Your task to perform on an android device: Open the map Image 0: 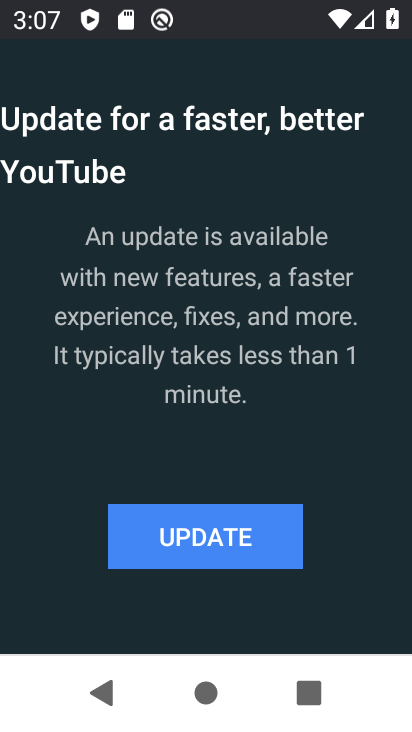
Step 0: drag from (320, 547) to (201, 254)
Your task to perform on an android device: Open the map Image 1: 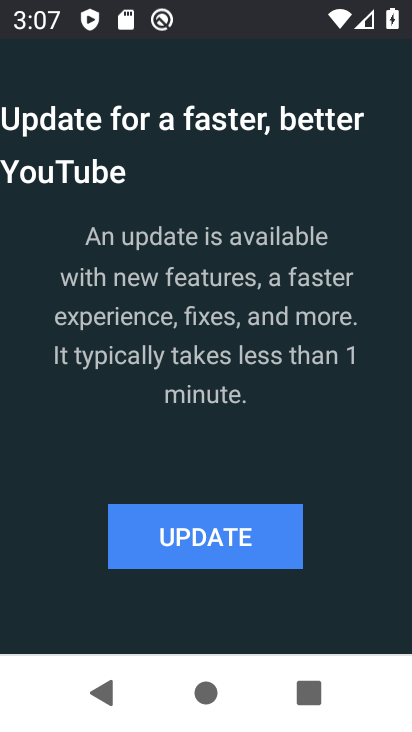
Step 1: press home button
Your task to perform on an android device: Open the map Image 2: 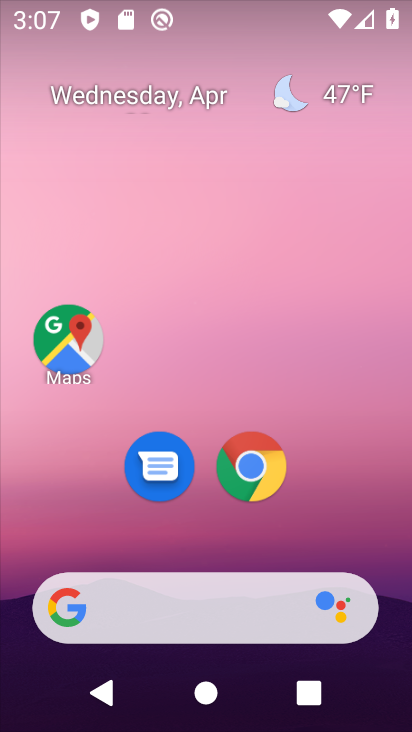
Step 2: click (63, 325)
Your task to perform on an android device: Open the map Image 3: 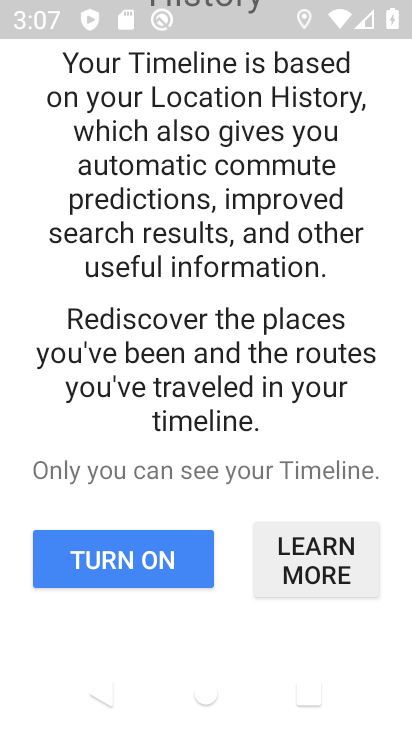
Step 3: press back button
Your task to perform on an android device: Open the map Image 4: 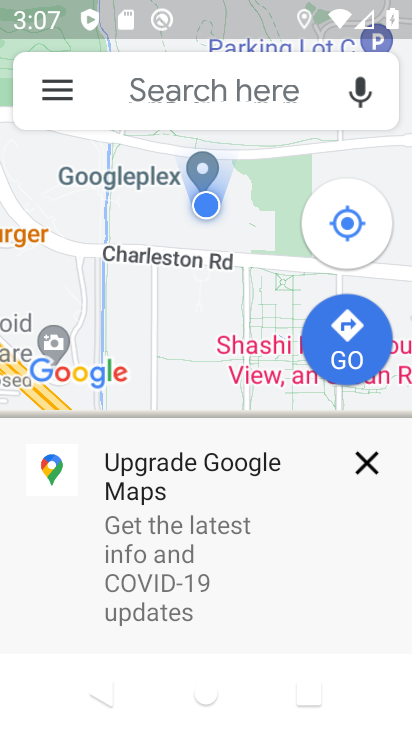
Step 4: click (364, 466)
Your task to perform on an android device: Open the map Image 5: 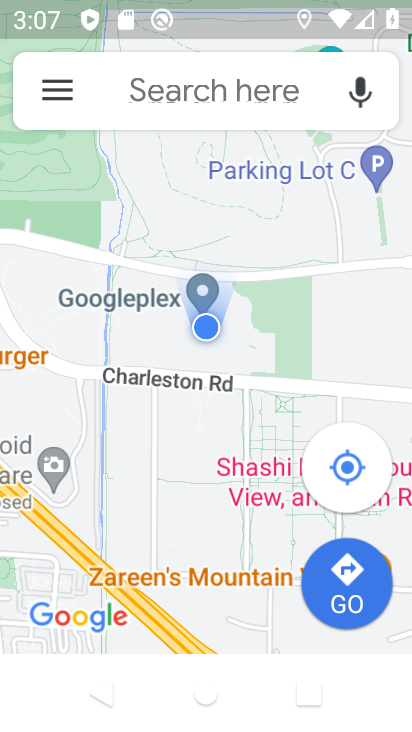
Step 5: task complete